Your task to perform on an android device: toggle translation in the chrome app Image 0: 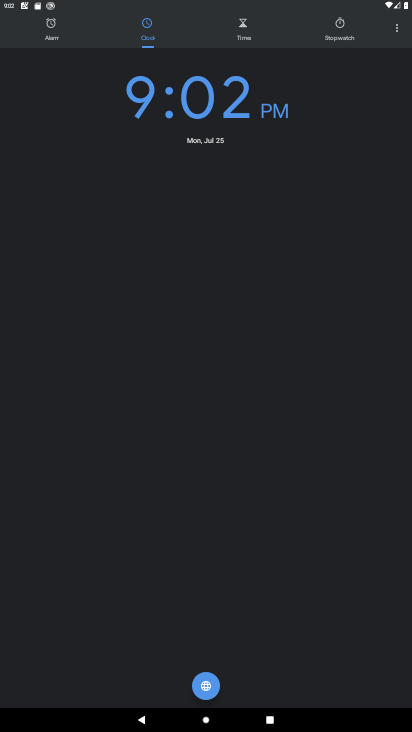
Step 0: press home button
Your task to perform on an android device: toggle translation in the chrome app Image 1: 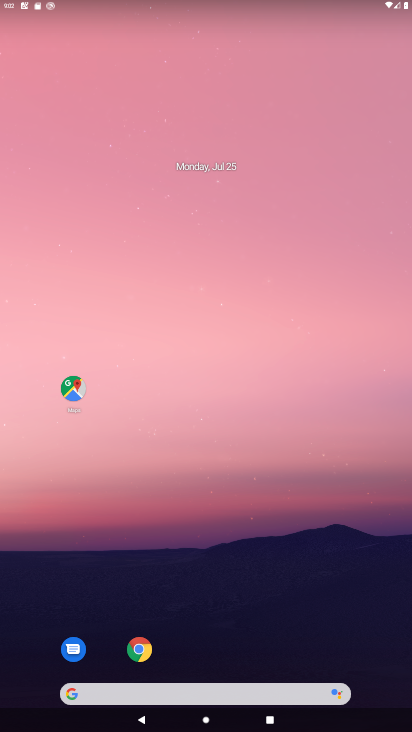
Step 1: drag from (215, 672) to (203, 14)
Your task to perform on an android device: toggle translation in the chrome app Image 2: 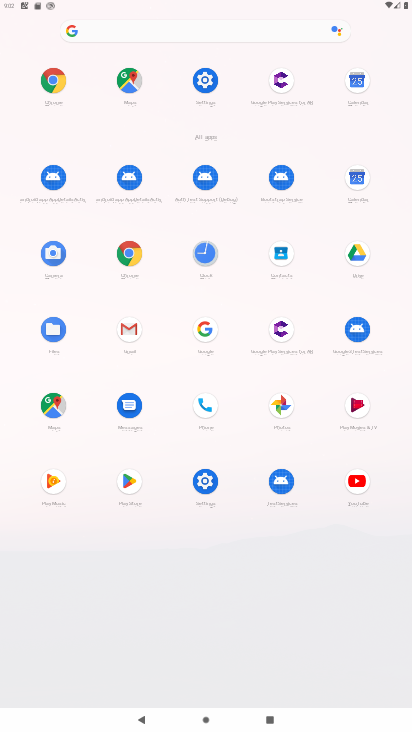
Step 2: click (142, 245)
Your task to perform on an android device: toggle translation in the chrome app Image 3: 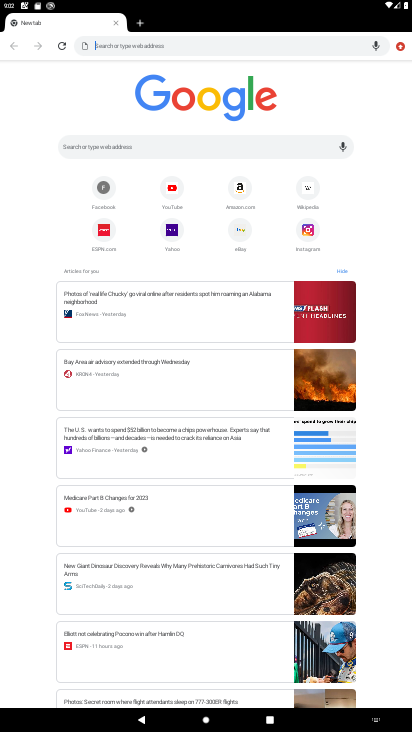
Step 3: click (396, 49)
Your task to perform on an android device: toggle translation in the chrome app Image 4: 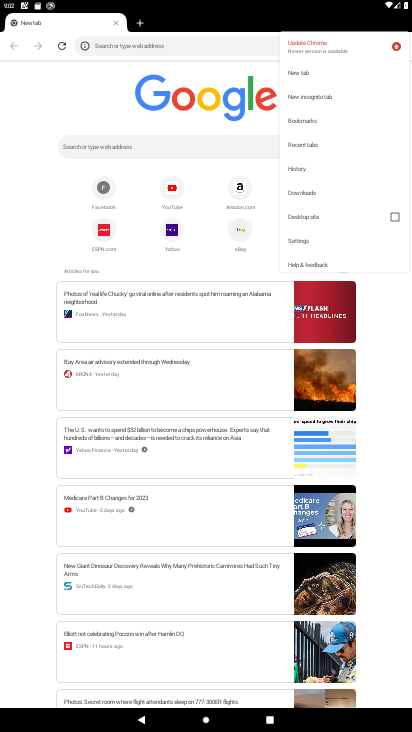
Step 4: click (293, 233)
Your task to perform on an android device: toggle translation in the chrome app Image 5: 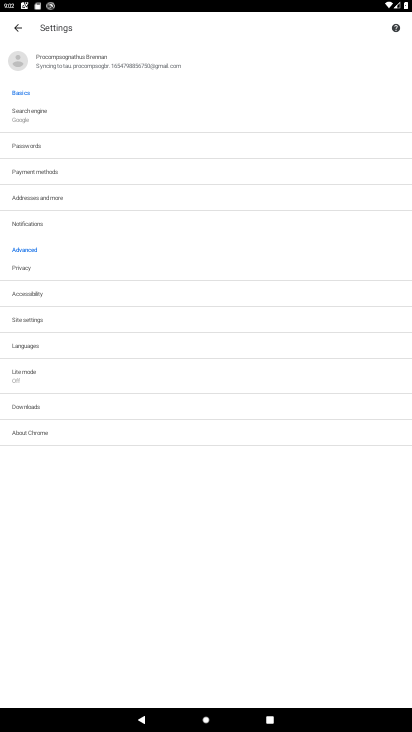
Step 5: click (37, 345)
Your task to perform on an android device: toggle translation in the chrome app Image 6: 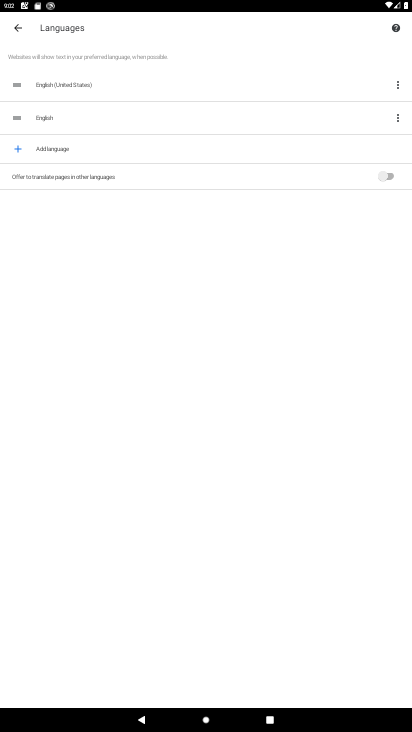
Step 6: click (384, 183)
Your task to perform on an android device: toggle translation in the chrome app Image 7: 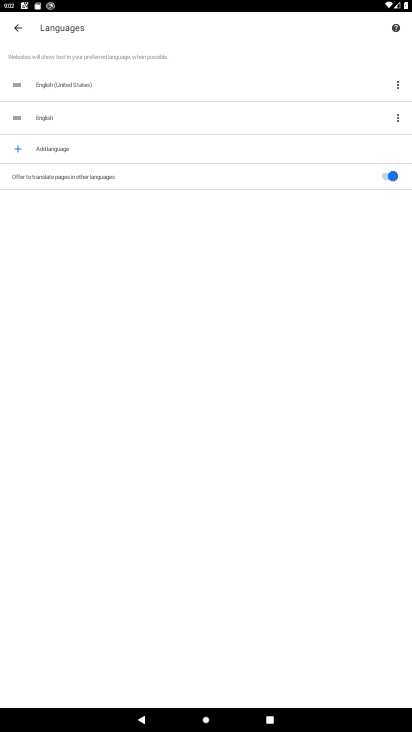
Step 7: task complete